Your task to perform on an android device: Find coffee shops on Maps Image 0: 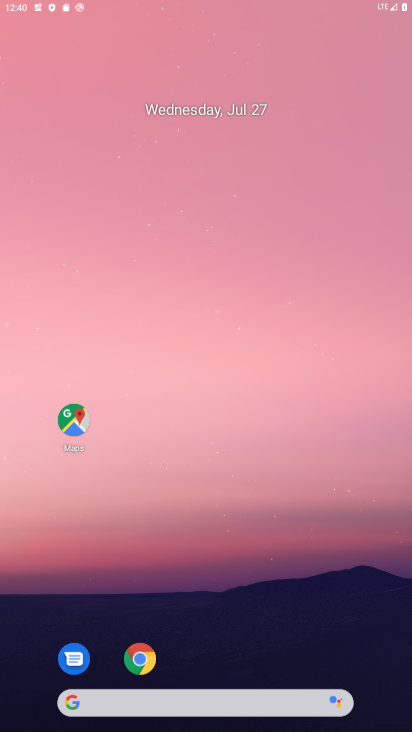
Step 0: click (228, 533)
Your task to perform on an android device: Find coffee shops on Maps Image 1: 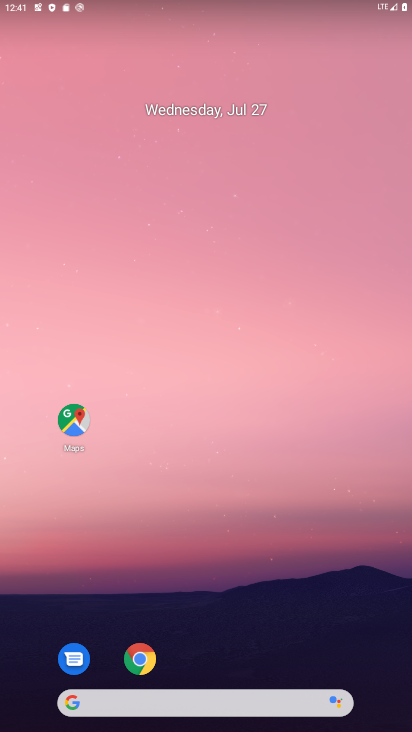
Step 1: click (75, 436)
Your task to perform on an android device: Find coffee shops on Maps Image 2: 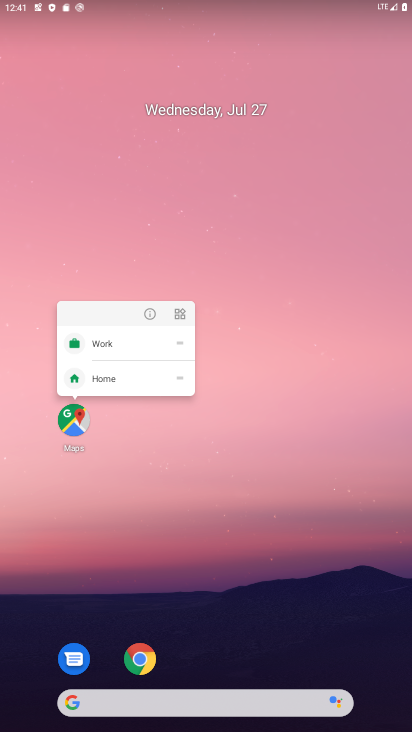
Step 2: click (85, 410)
Your task to perform on an android device: Find coffee shops on Maps Image 3: 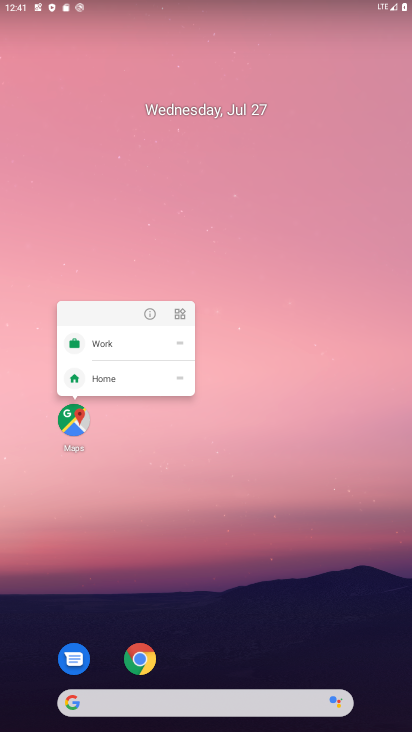
Step 3: click (71, 427)
Your task to perform on an android device: Find coffee shops on Maps Image 4: 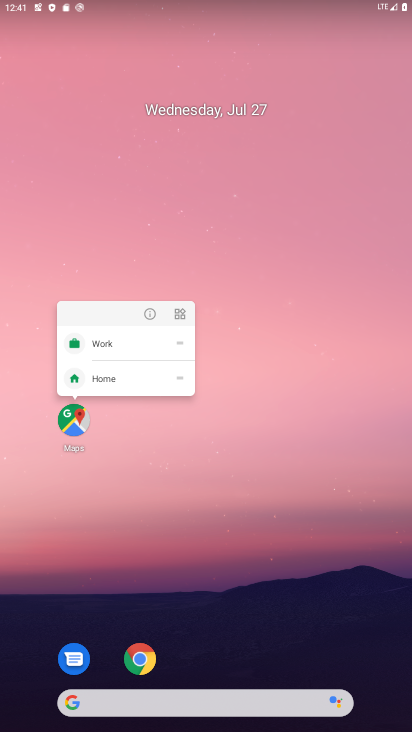
Step 4: drag from (203, 646) to (326, 90)
Your task to perform on an android device: Find coffee shops on Maps Image 5: 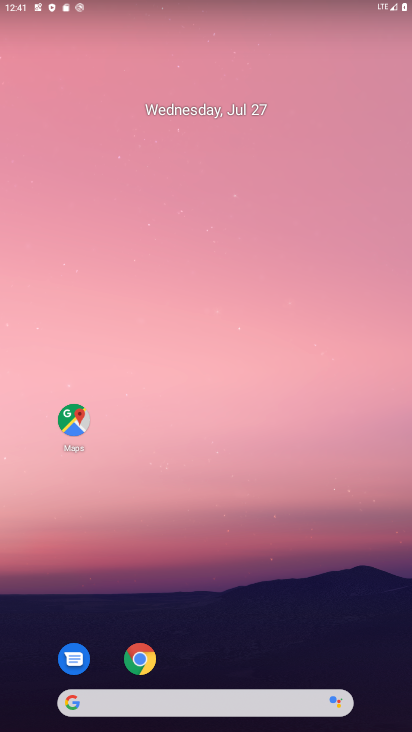
Step 5: drag from (234, 616) to (242, 24)
Your task to perform on an android device: Find coffee shops on Maps Image 6: 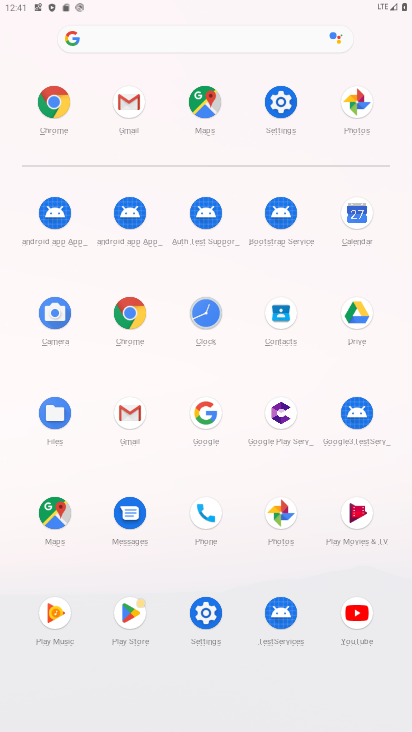
Step 6: click (213, 104)
Your task to perform on an android device: Find coffee shops on Maps Image 7: 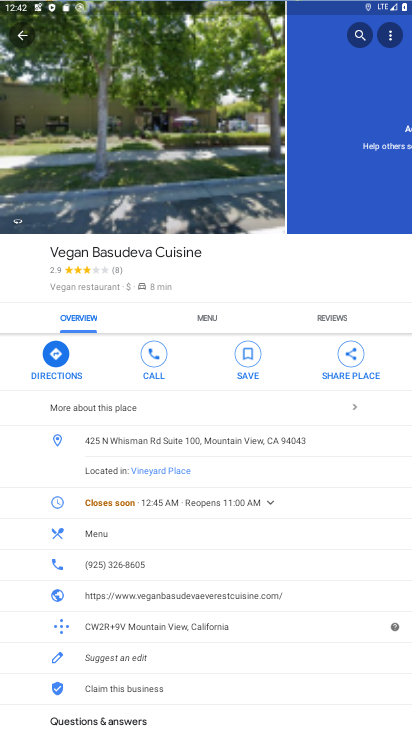
Step 7: press back button
Your task to perform on an android device: Find coffee shops on Maps Image 8: 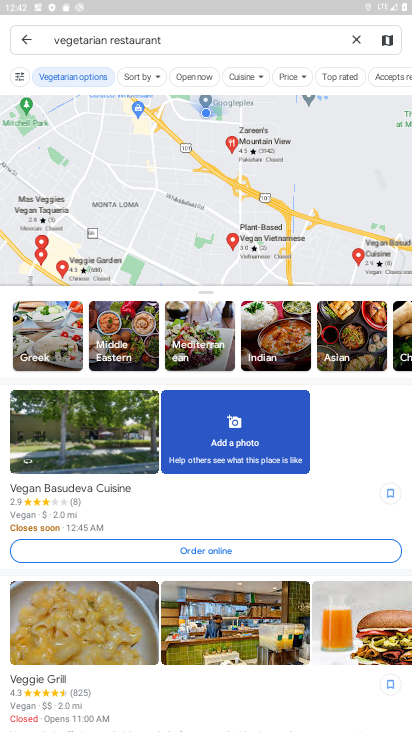
Step 8: click (356, 38)
Your task to perform on an android device: Find coffee shops on Maps Image 9: 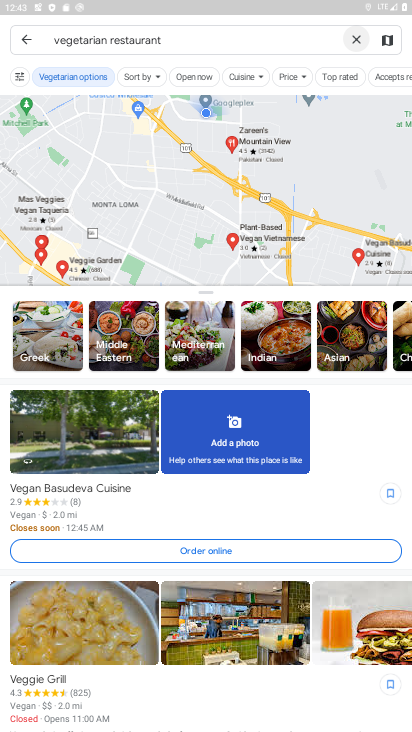
Step 9: click (246, 47)
Your task to perform on an android device: Find coffee shops on Maps Image 10: 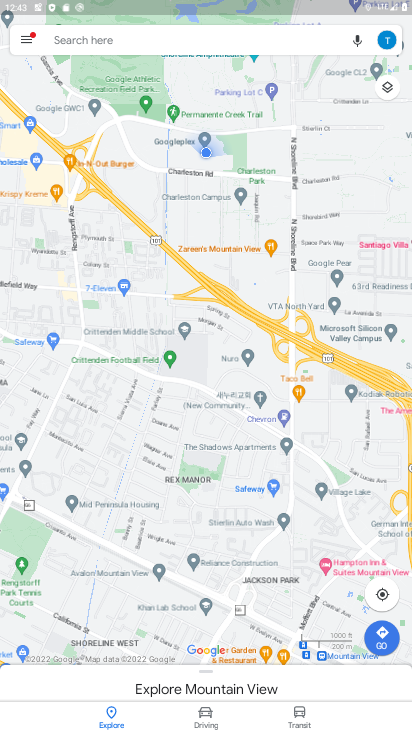
Step 10: click (236, 41)
Your task to perform on an android device: Find coffee shops on Maps Image 11: 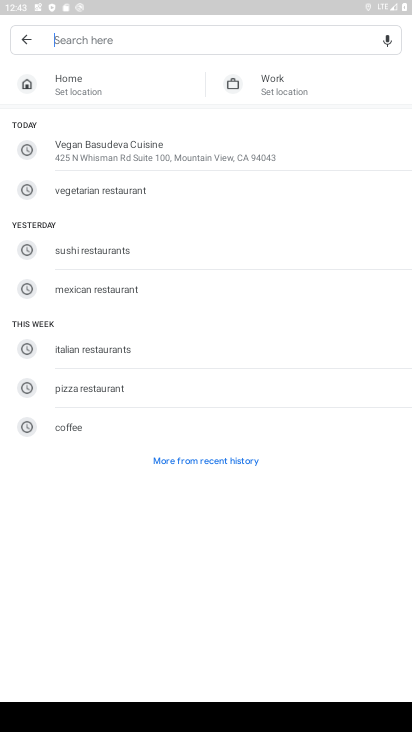
Step 11: click (119, 432)
Your task to perform on an android device: Find coffee shops on Maps Image 12: 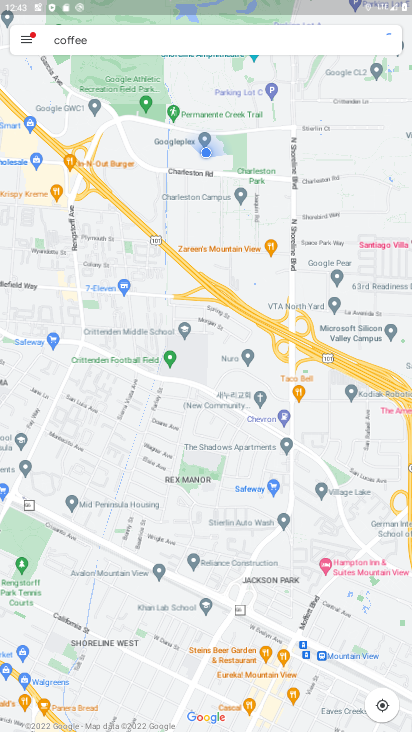
Step 12: task complete